Your task to perform on an android device: toggle location history Image 0: 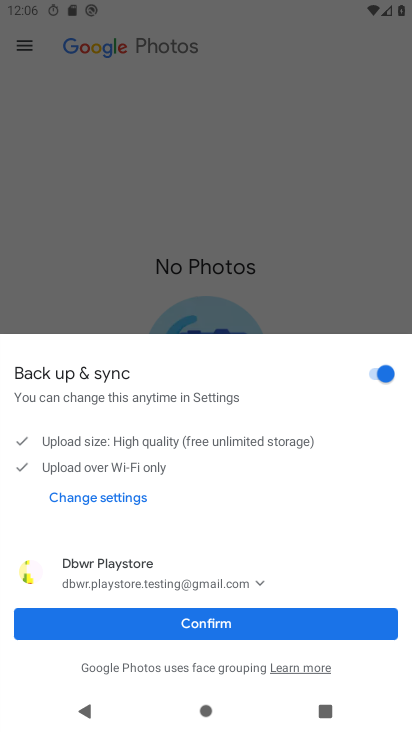
Step 0: press home button
Your task to perform on an android device: toggle location history Image 1: 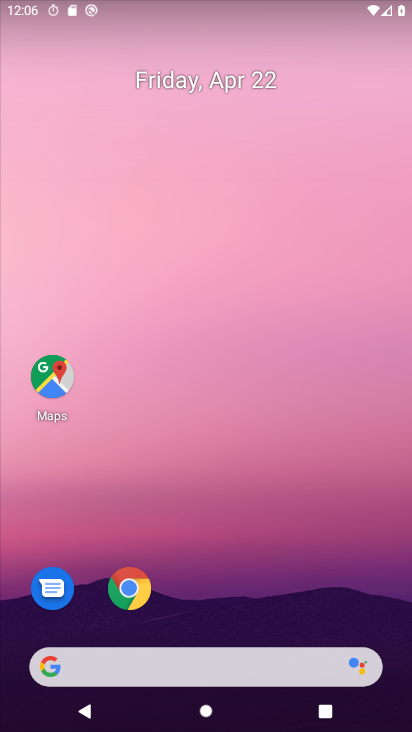
Step 1: drag from (248, 607) to (268, 167)
Your task to perform on an android device: toggle location history Image 2: 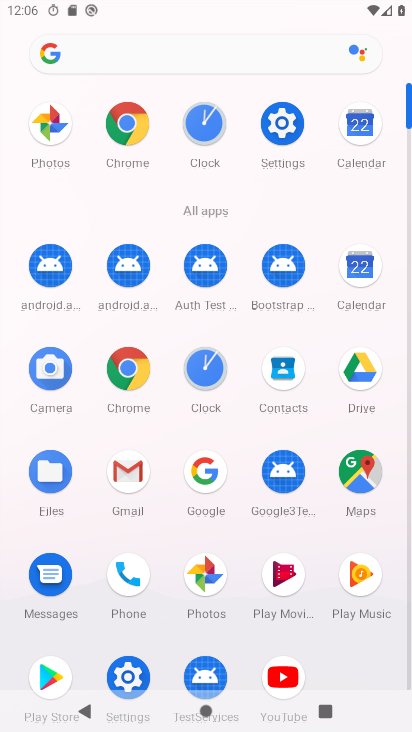
Step 2: click (125, 666)
Your task to perform on an android device: toggle location history Image 3: 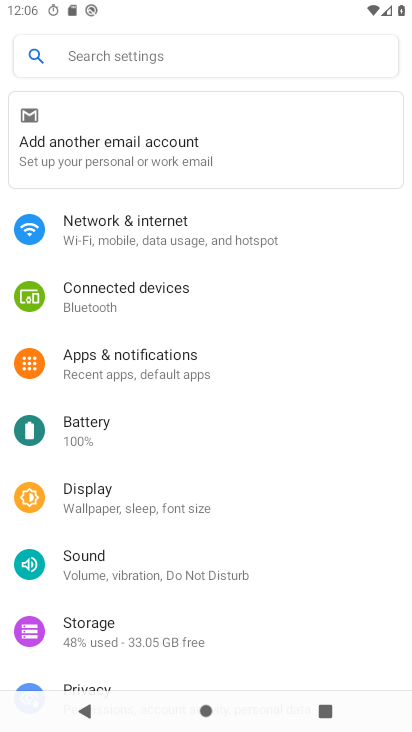
Step 3: click (122, 626)
Your task to perform on an android device: toggle location history Image 4: 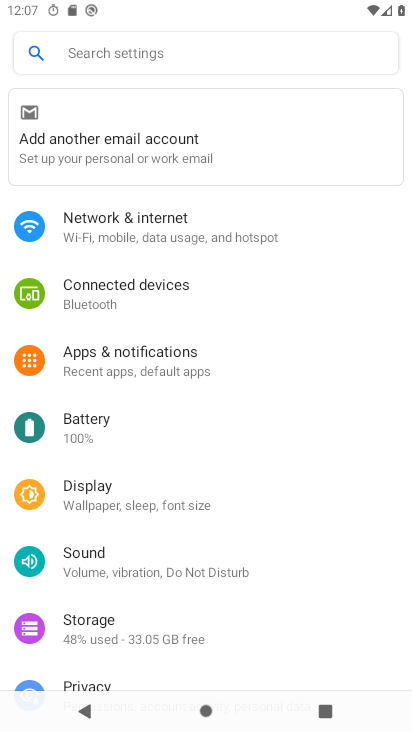
Step 4: drag from (128, 641) to (118, 585)
Your task to perform on an android device: toggle location history Image 5: 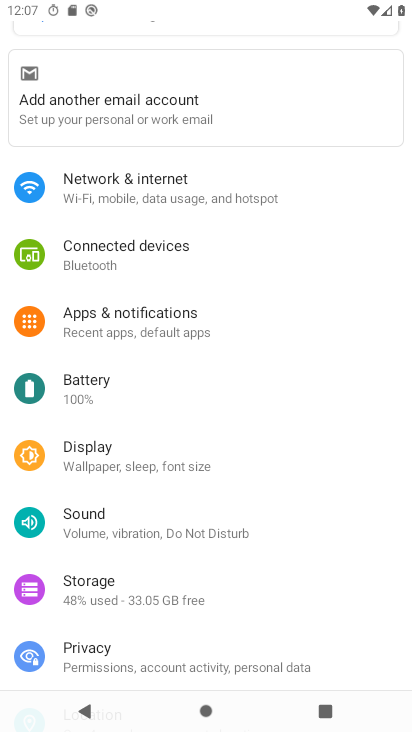
Step 5: drag from (133, 629) to (140, 564)
Your task to perform on an android device: toggle location history Image 6: 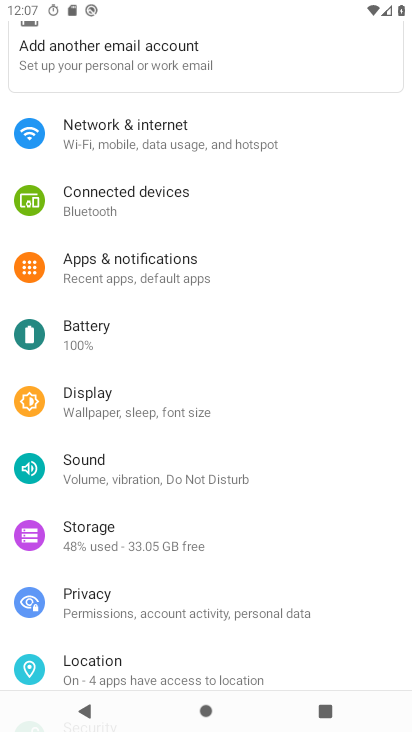
Step 6: click (163, 668)
Your task to perform on an android device: toggle location history Image 7: 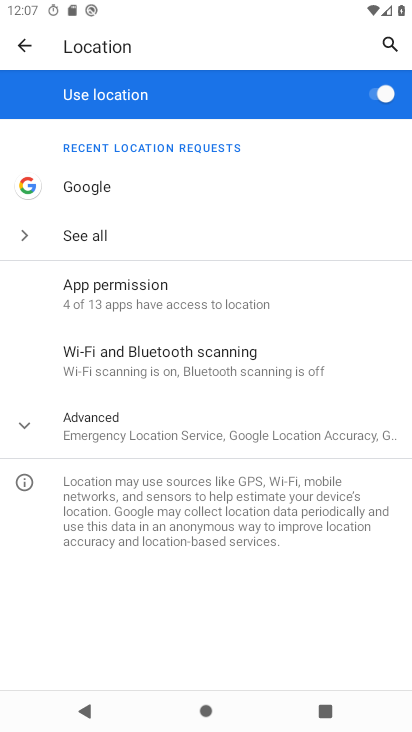
Step 7: click (170, 430)
Your task to perform on an android device: toggle location history Image 8: 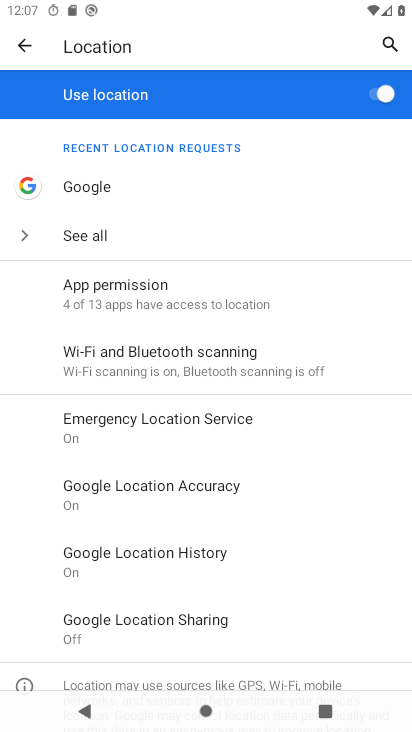
Step 8: click (206, 551)
Your task to perform on an android device: toggle location history Image 9: 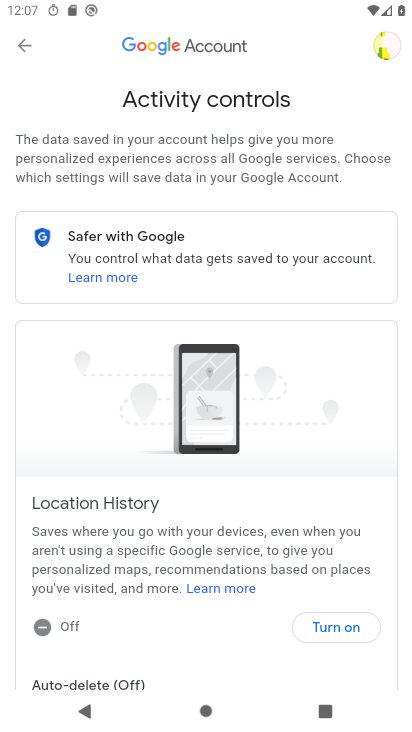
Step 9: click (346, 630)
Your task to perform on an android device: toggle location history Image 10: 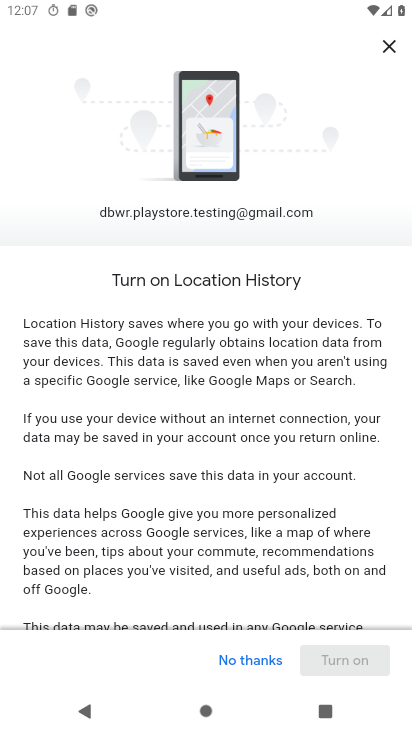
Step 10: drag from (343, 607) to (361, 292)
Your task to perform on an android device: toggle location history Image 11: 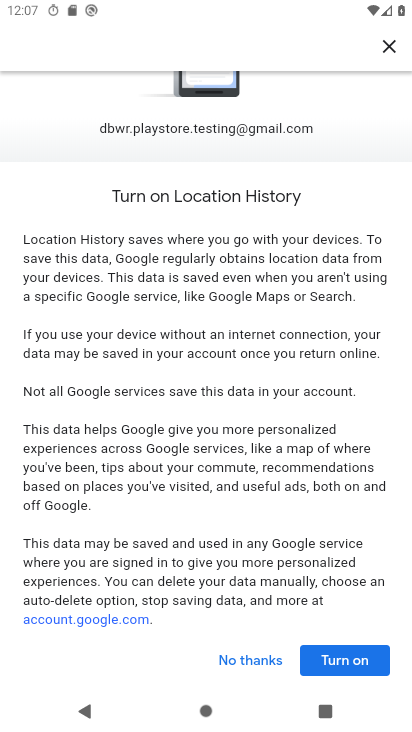
Step 11: click (337, 661)
Your task to perform on an android device: toggle location history Image 12: 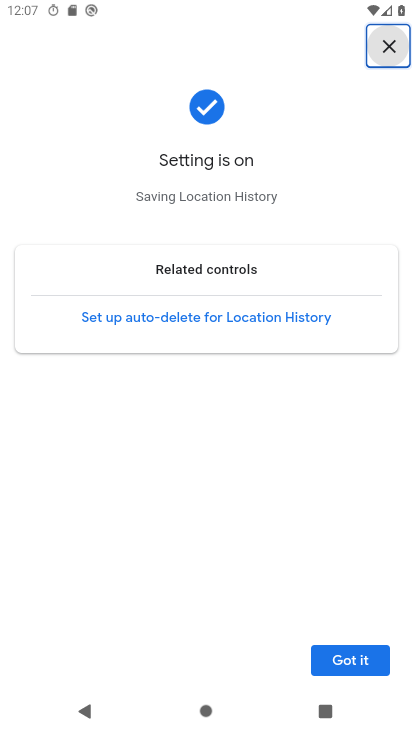
Step 12: task complete